Your task to perform on an android device: Open Youtube and go to the subscriptions tab Image 0: 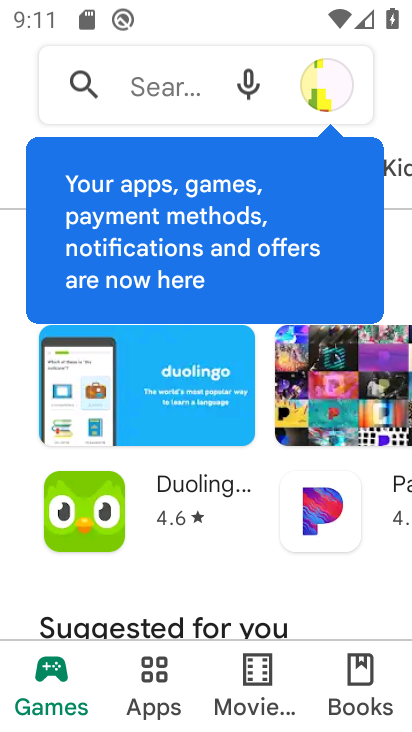
Step 0: press home button
Your task to perform on an android device: Open Youtube and go to the subscriptions tab Image 1: 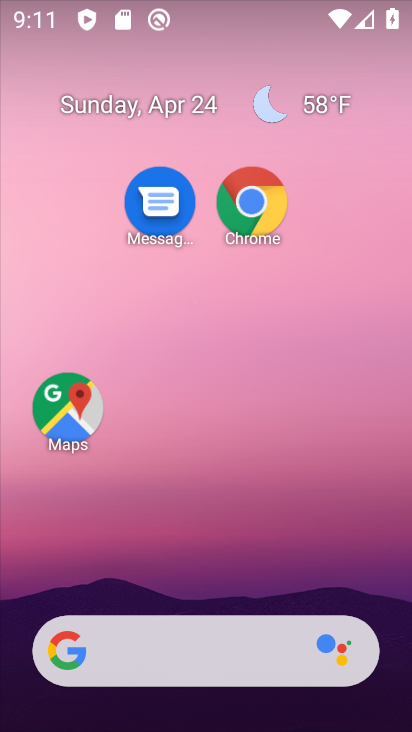
Step 1: drag from (199, 726) to (146, 133)
Your task to perform on an android device: Open Youtube and go to the subscriptions tab Image 2: 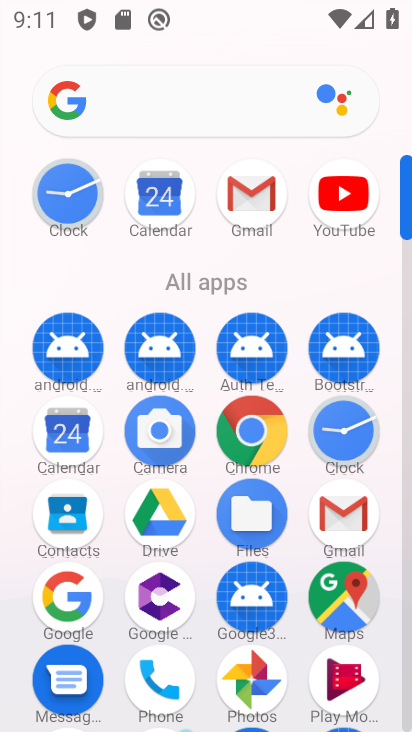
Step 2: click (342, 197)
Your task to perform on an android device: Open Youtube and go to the subscriptions tab Image 3: 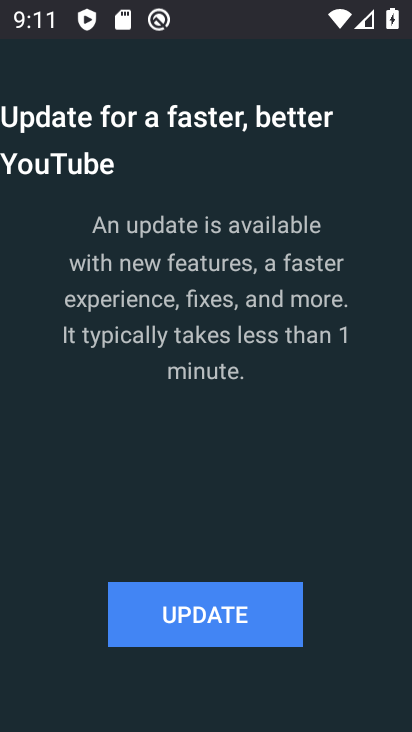
Step 3: task complete